Your task to perform on an android device: toggle wifi Image 0: 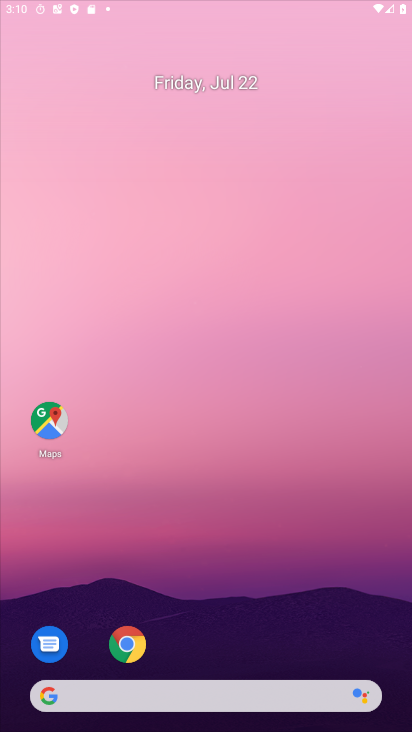
Step 0: press home button
Your task to perform on an android device: toggle wifi Image 1: 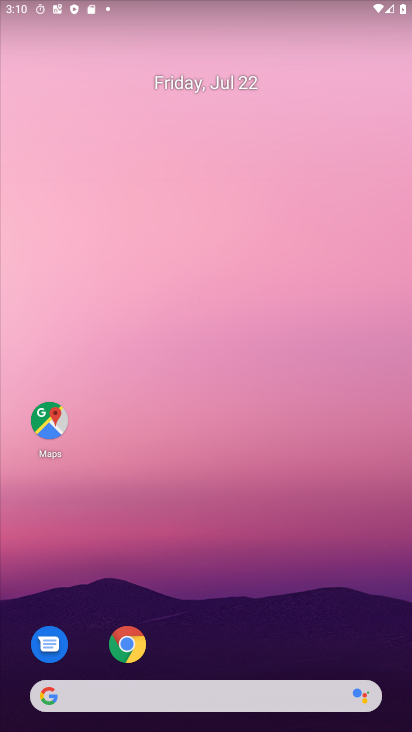
Step 1: drag from (202, 1) to (217, 510)
Your task to perform on an android device: toggle wifi Image 2: 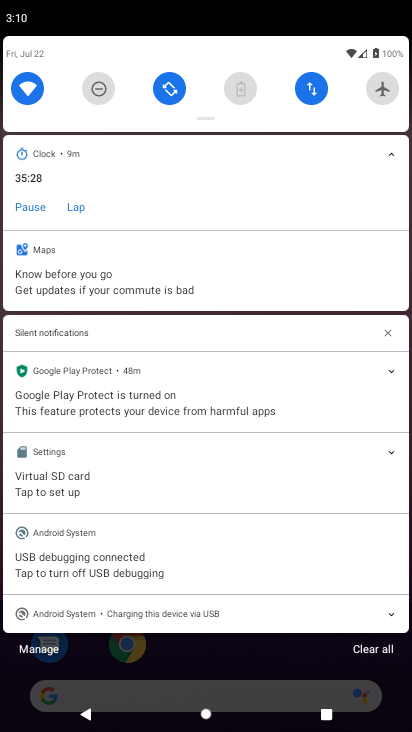
Step 2: click (36, 81)
Your task to perform on an android device: toggle wifi Image 3: 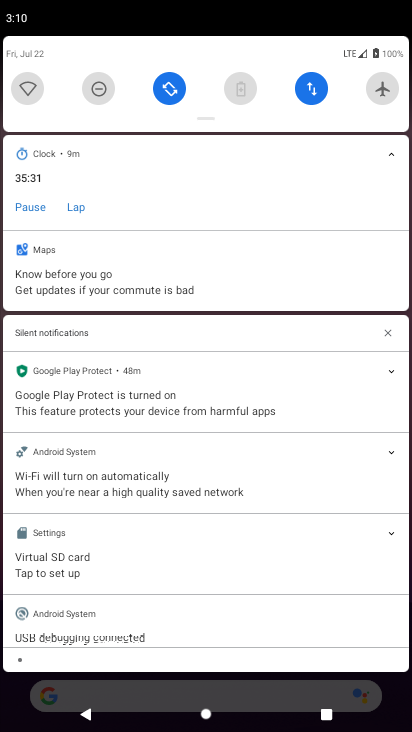
Step 3: task complete